Your task to perform on an android device: Open Youtube and go to the subscriptions tab Image 0: 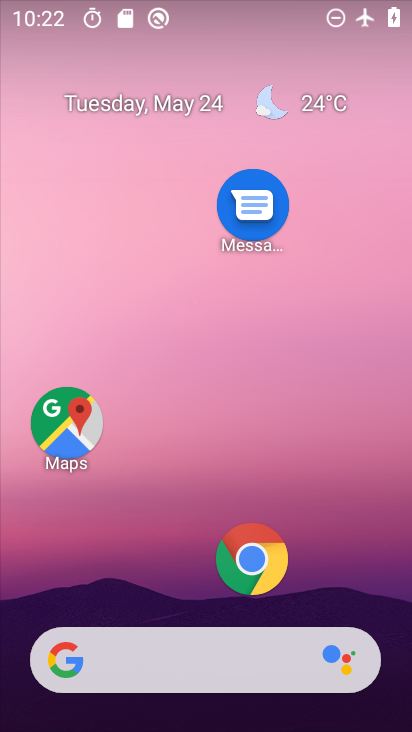
Step 0: drag from (184, 600) to (145, 166)
Your task to perform on an android device: Open Youtube and go to the subscriptions tab Image 1: 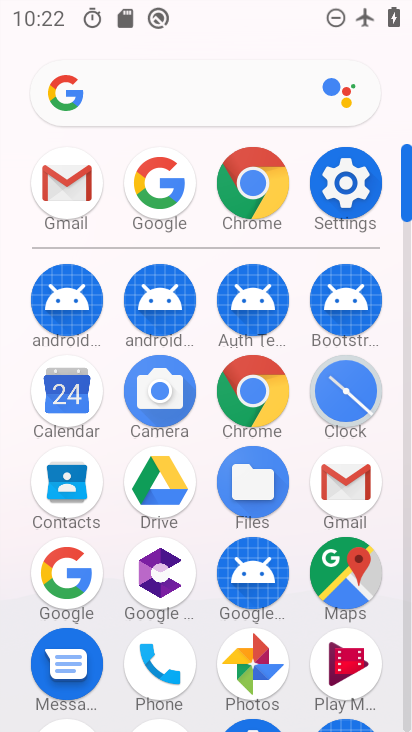
Step 1: drag from (203, 613) to (206, 285)
Your task to perform on an android device: Open Youtube and go to the subscriptions tab Image 2: 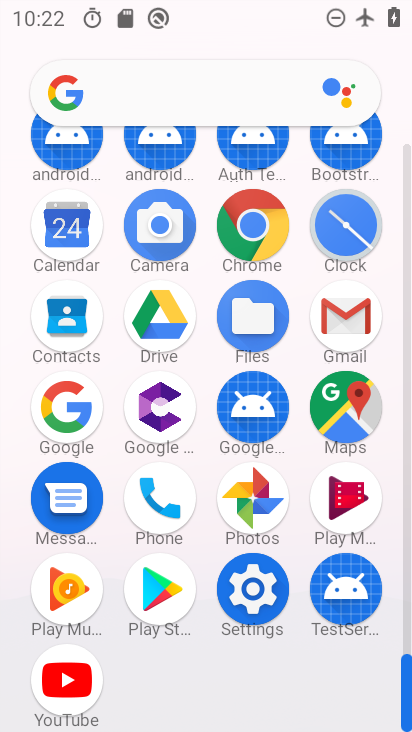
Step 2: click (83, 672)
Your task to perform on an android device: Open Youtube and go to the subscriptions tab Image 3: 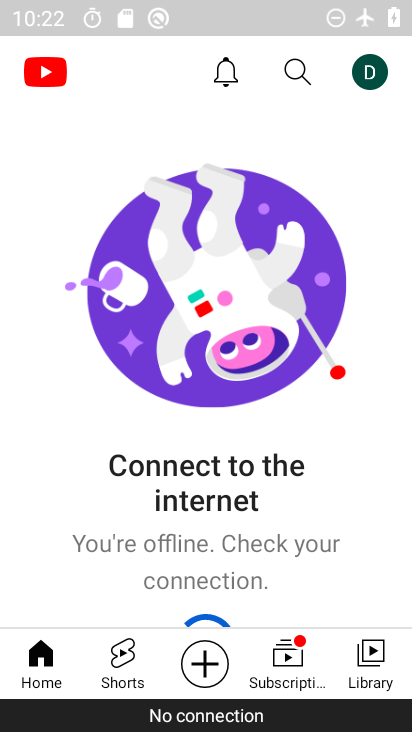
Step 3: click (273, 670)
Your task to perform on an android device: Open Youtube and go to the subscriptions tab Image 4: 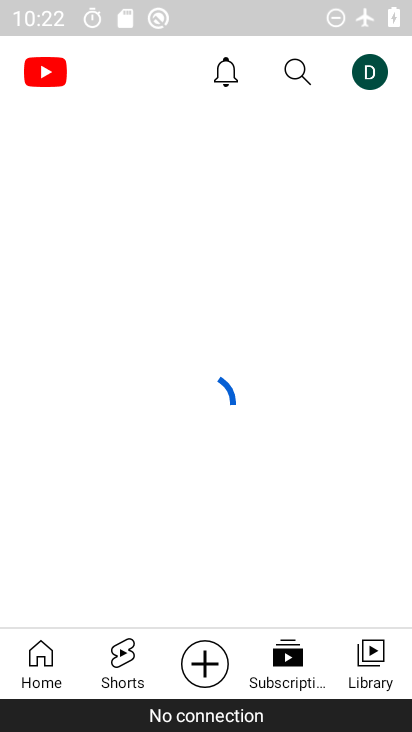
Step 4: task complete